Your task to perform on an android device: turn off javascript in the chrome app Image 0: 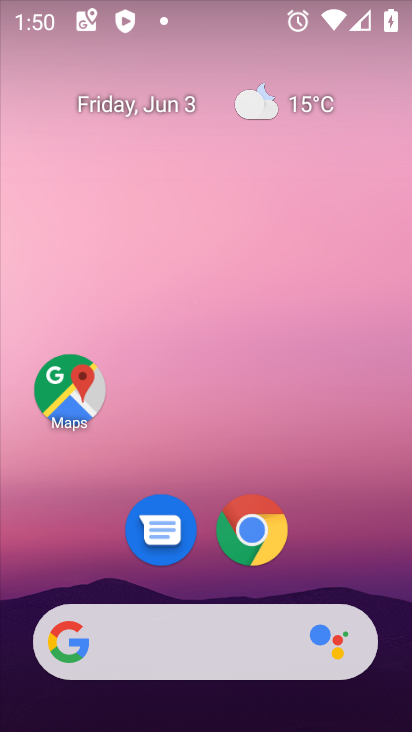
Step 0: click (259, 546)
Your task to perform on an android device: turn off javascript in the chrome app Image 1: 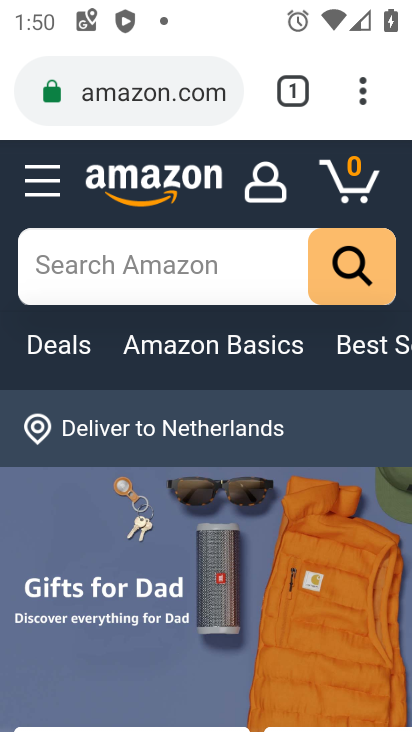
Step 1: drag from (357, 88) to (270, 552)
Your task to perform on an android device: turn off javascript in the chrome app Image 2: 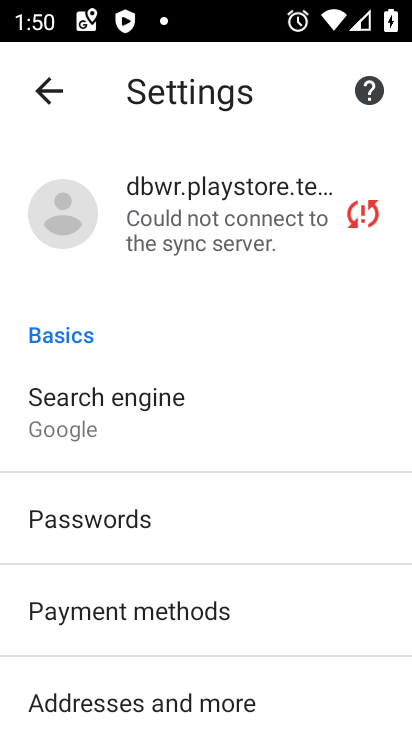
Step 2: drag from (287, 390) to (271, 65)
Your task to perform on an android device: turn off javascript in the chrome app Image 3: 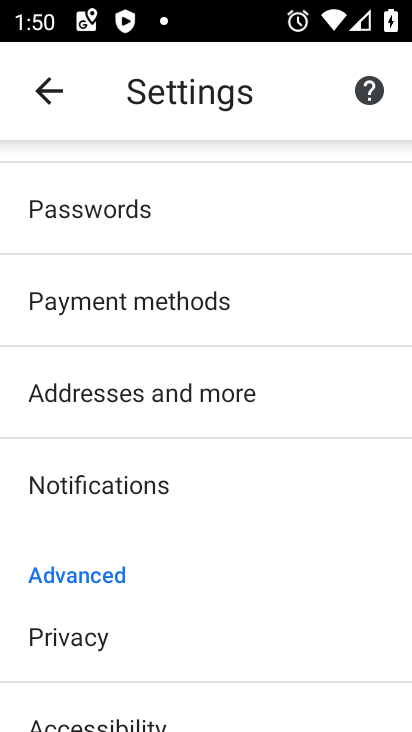
Step 3: drag from (200, 574) to (231, 288)
Your task to perform on an android device: turn off javascript in the chrome app Image 4: 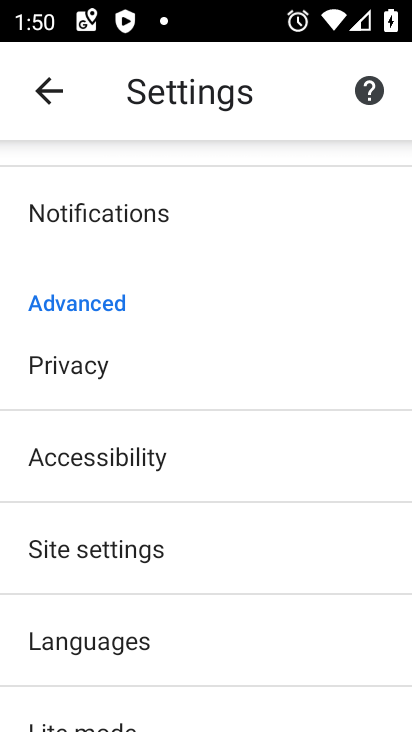
Step 4: click (209, 554)
Your task to perform on an android device: turn off javascript in the chrome app Image 5: 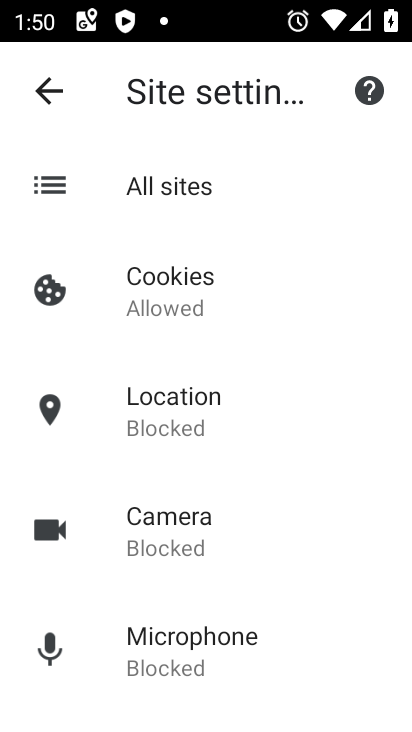
Step 5: drag from (333, 710) to (337, 205)
Your task to perform on an android device: turn off javascript in the chrome app Image 6: 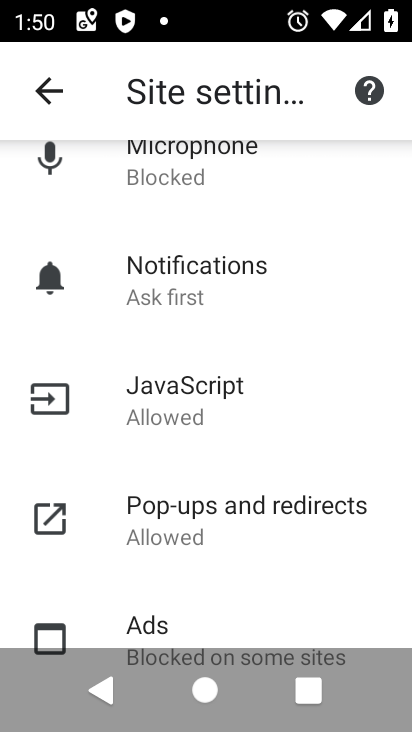
Step 6: click (200, 406)
Your task to perform on an android device: turn off javascript in the chrome app Image 7: 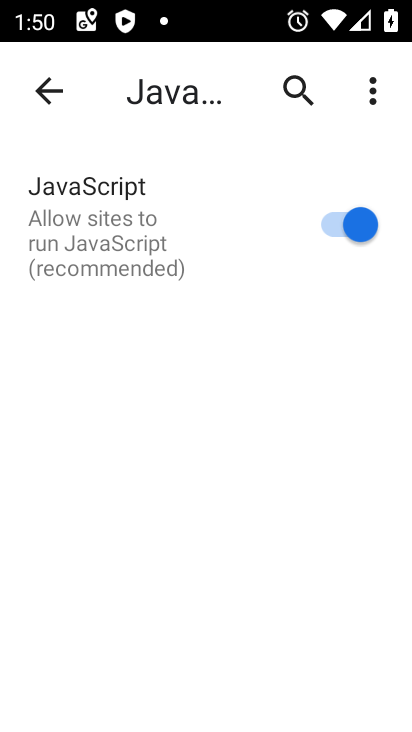
Step 7: click (333, 219)
Your task to perform on an android device: turn off javascript in the chrome app Image 8: 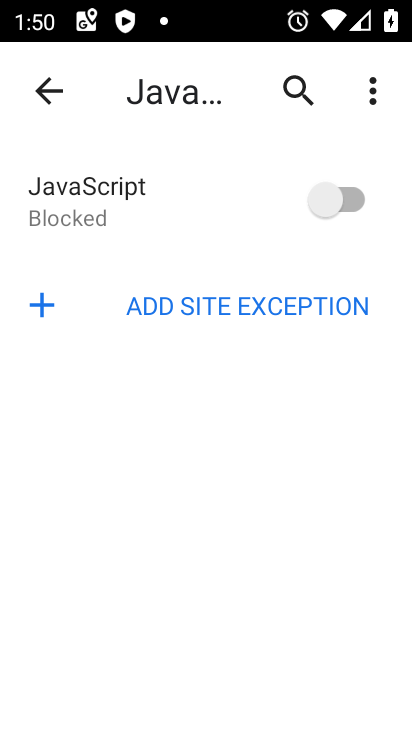
Step 8: task complete